Your task to perform on an android device: Open settings Image 0: 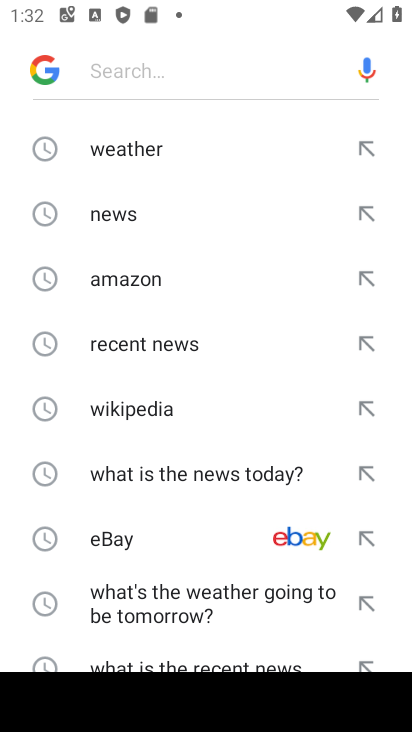
Step 0: press home button
Your task to perform on an android device: Open settings Image 1: 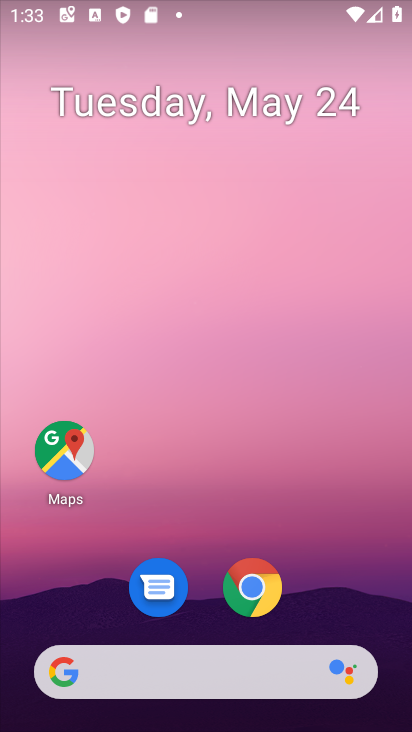
Step 1: drag from (224, 680) to (369, 79)
Your task to perform on an android device: Open settings Image 2: 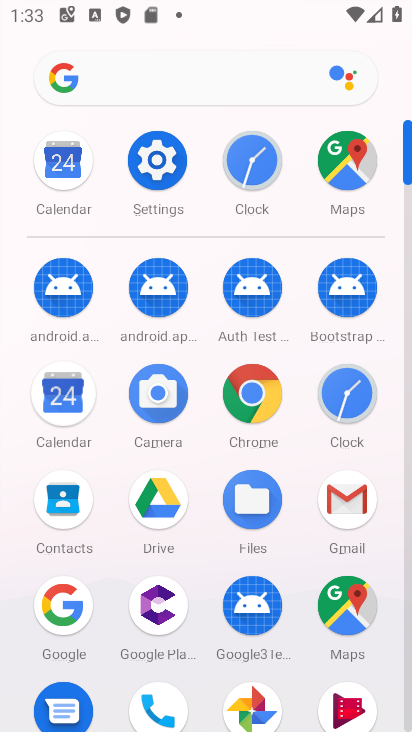
Step 2: click (159, 179)
Your task to perform on an android device: Open settings Image 3: 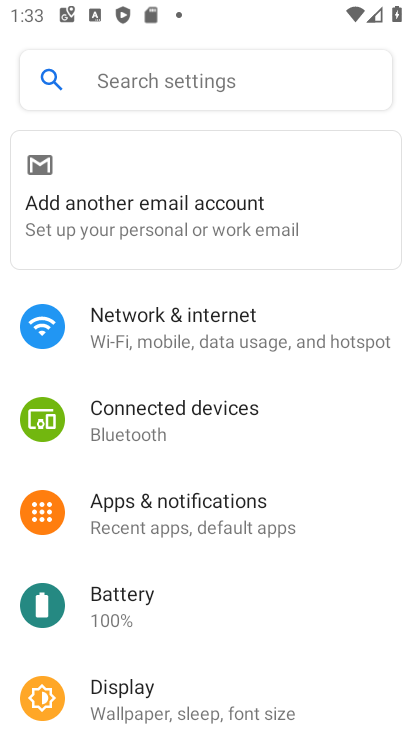
Step 3: task complete